Your task to perform on an android device: What's the weather going to be tomorrow? Image 0: 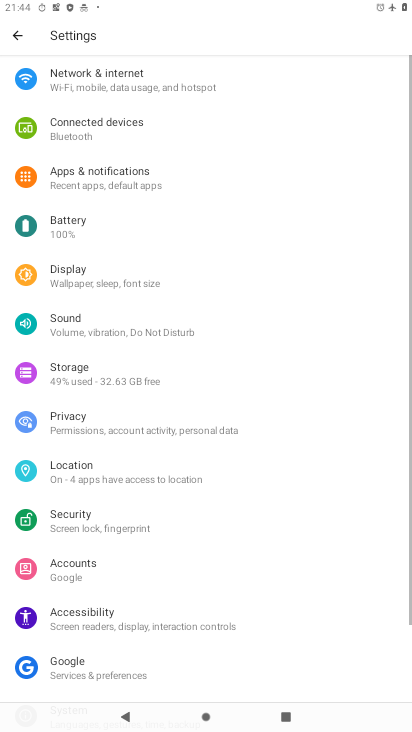
Step 0: press back button
Your task to perform on an android device: What's the weather going to be tomorrow? Image 1: 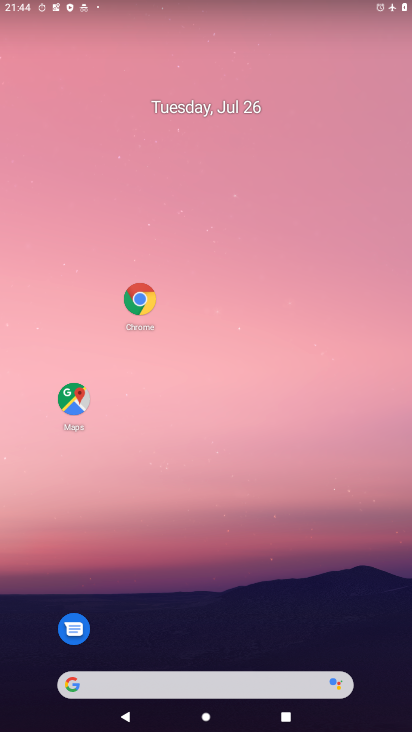
Step 1: drag from (258, 644) to (213, 66)
Your task to perform on an android device: What's the weather going to be tomorrow? Image 2: 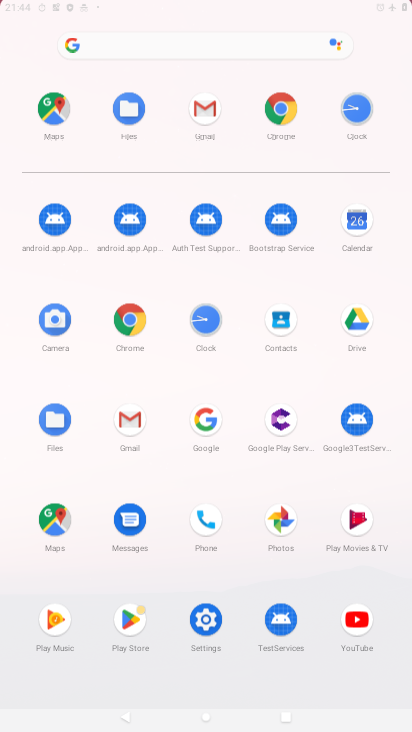
Step 2: drag from (197, 376) to (197, 112)
Your task to perform on an android device: What's the weather going to be tomorrow? Image 3: 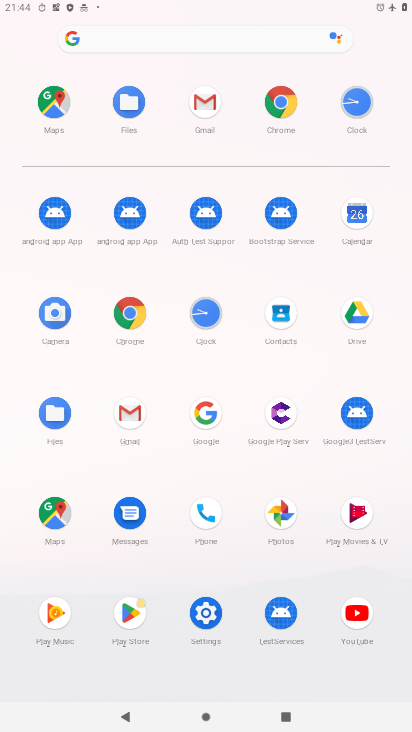
Step 3: drag from (191, 204) to (191, 148)
Your task to perform on an android device: What's the weather going to be tomorrow? Image 4: 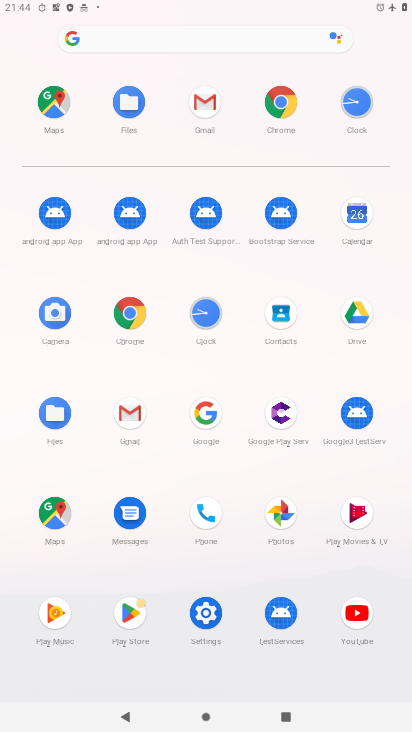
Step 4: click (205, 616)
Your task to perform on an android device: What's the weather going to be tomorrow? Image 5: 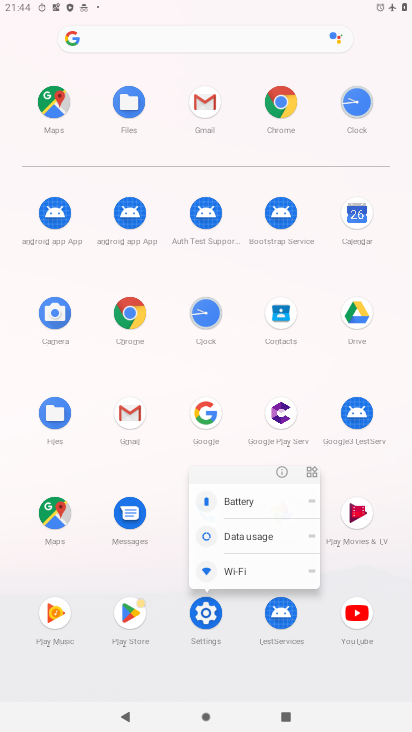
Step 5: click (204, 615)
Your task to perform on an android device: What's the weather going to be tomorrow? Image 6: 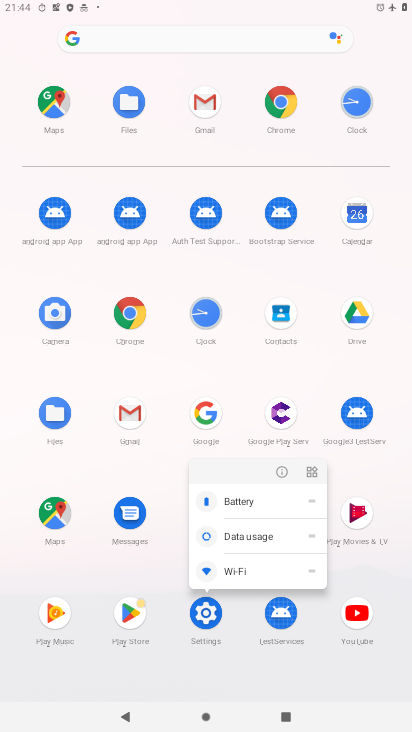
Step 6: click (204, 615)
Your task to perform on an android device: What's the weather going to be tomorrow? Image 7: 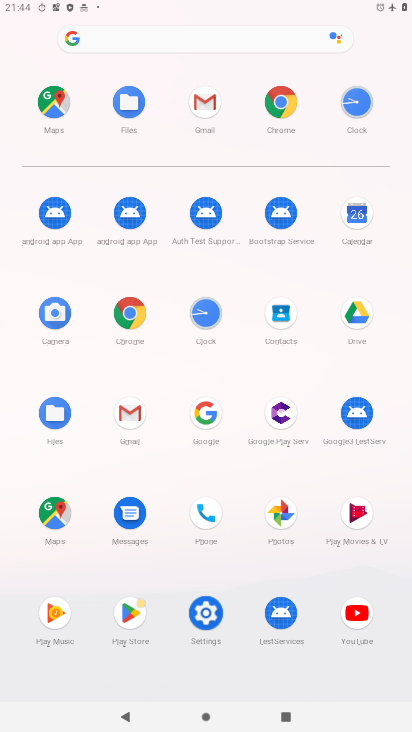
Step 7: click (204, 615)
Your task to perform on an android device: What's the weather going to be tomorrow? Image 8: 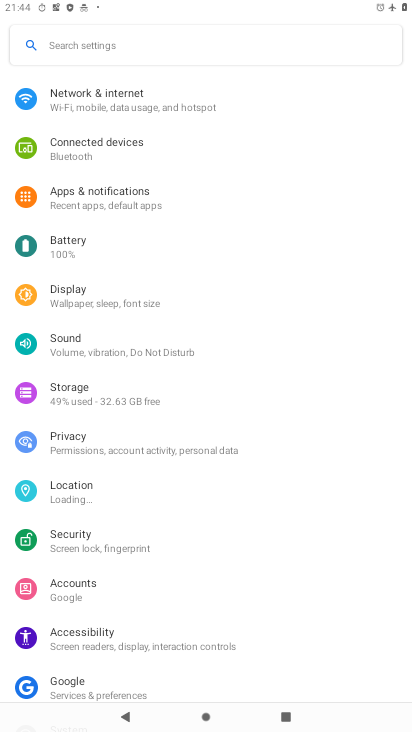
Step 8: click (95, 109)
Your task to perform on an android device: What's the weather going to be tomorrow? Image 9: 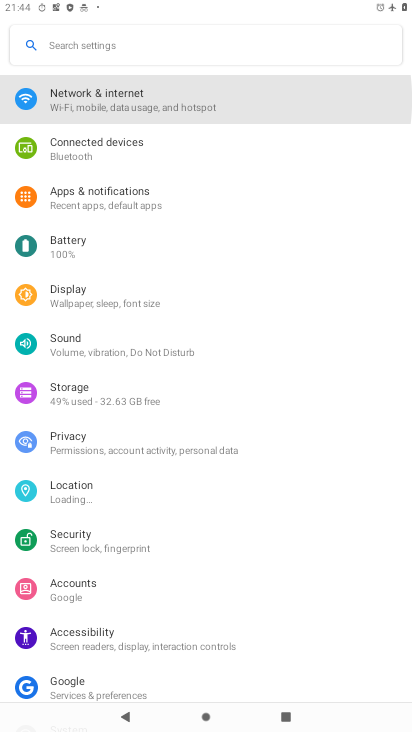
Step 9: click (95, 109)
Your task to perform on an android device: What's the weather going to be tomorrow? Image 10: 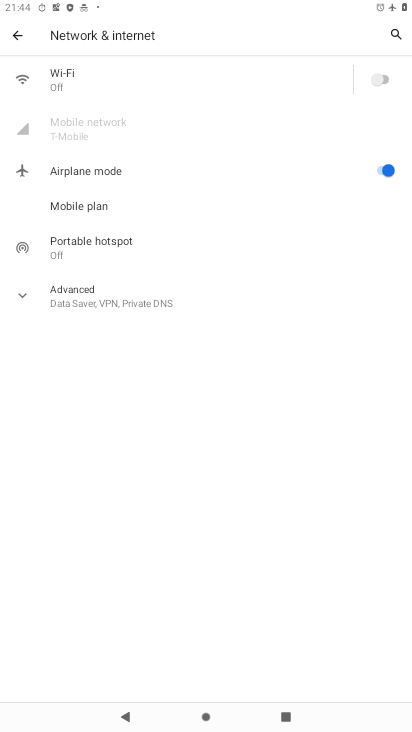
Step 10: click (378, 73)
Your task to perform on an android device: What's the weather going to be tomorrow? Image 11: 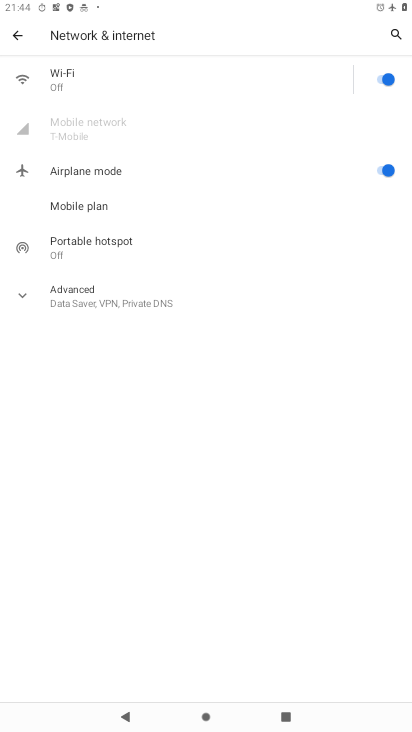
Step 11: click (394, 170)
Your task to perform on an android device: What's the weather going to be tomorrow? Image 12: 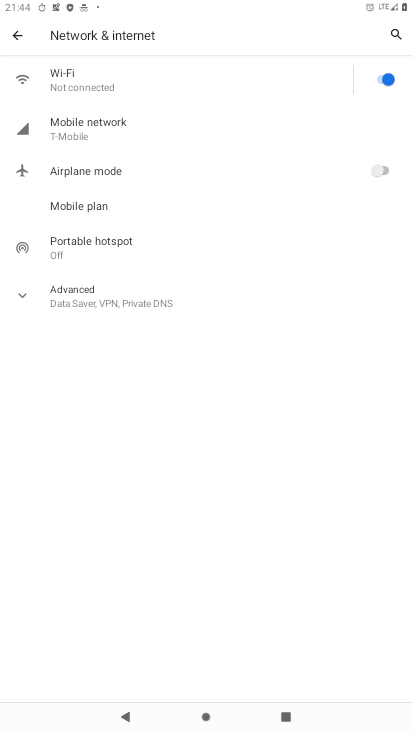
Step 12: click (393, 176)
Your task to perform on an android device: What's the weather going to be tomorrow? Image 13: 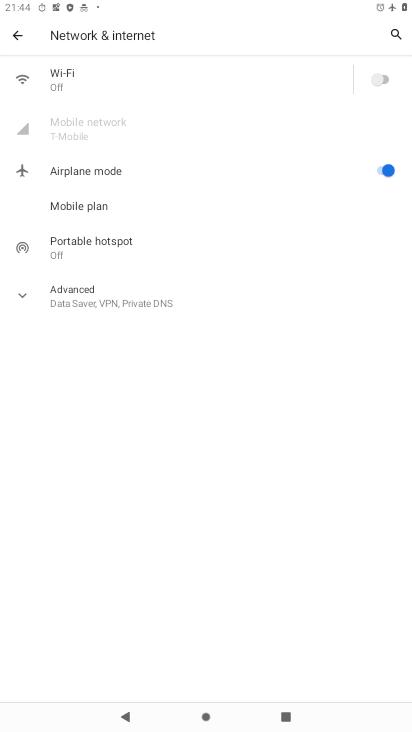
Step 13: click (371, 88)
Your task to perform on an android device: What's the weather going to be tomorrow? Image 14: 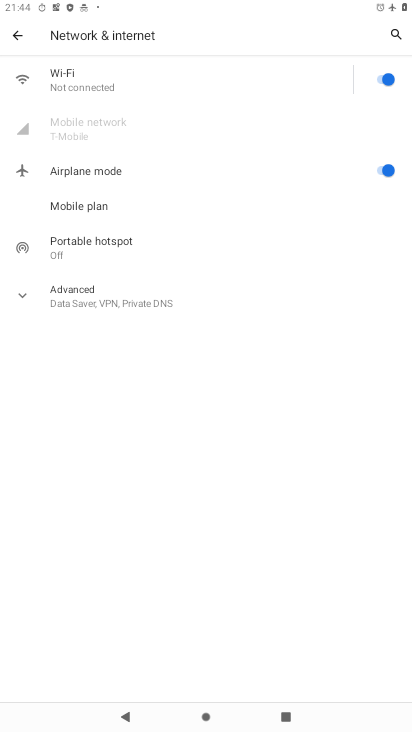
Step 14: click (390, 170)
Your task to perform on an android device: What's the weather going to be tomorrow? Image 15: 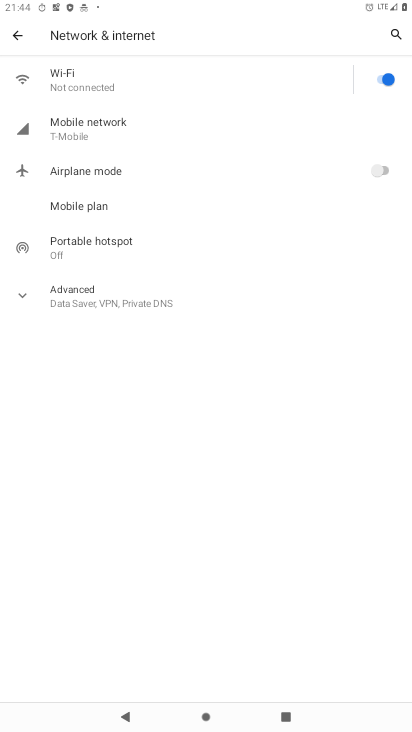
Step 15: press back button
Your task to perform on an android device: What's the weather going to be tomorrow? Image 16: 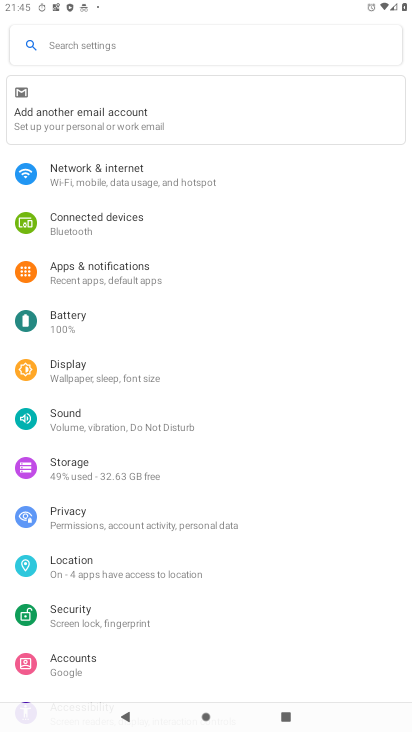
Step 16: press home button
Your task to perform on an android device: What's the weather going to be tomorrow? Image 17: 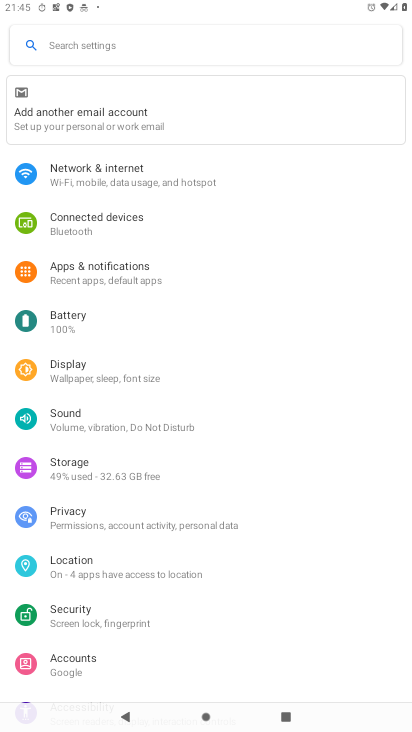
Step 17: press home button
Your task to perform on an android device: What's the weather going to be tomorrow? Image 18: 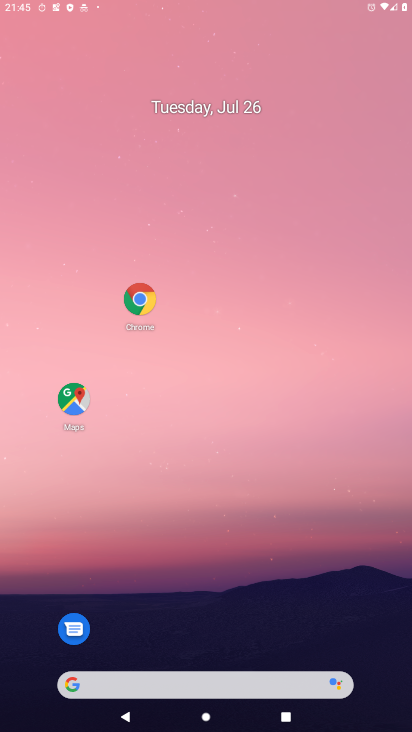
Step 18: press home button
Your task to perform on an android device: What's the weather going to be tomorrow? Image 19: 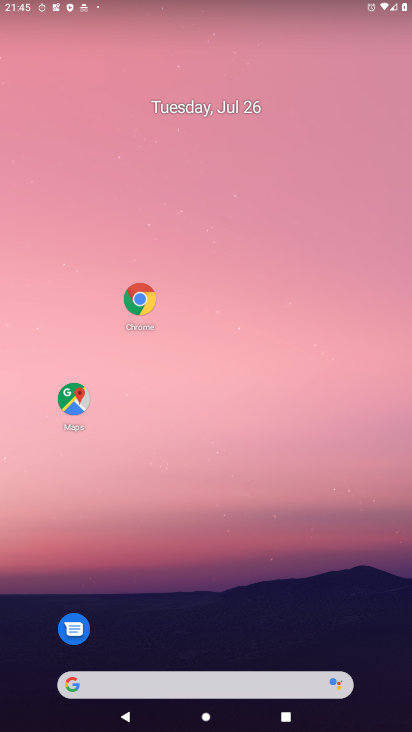
Step 19: drag from (239, 654) to (207, 139)
Your task to perform on an android device: What's the weather going to be tomorrow? Image 20: 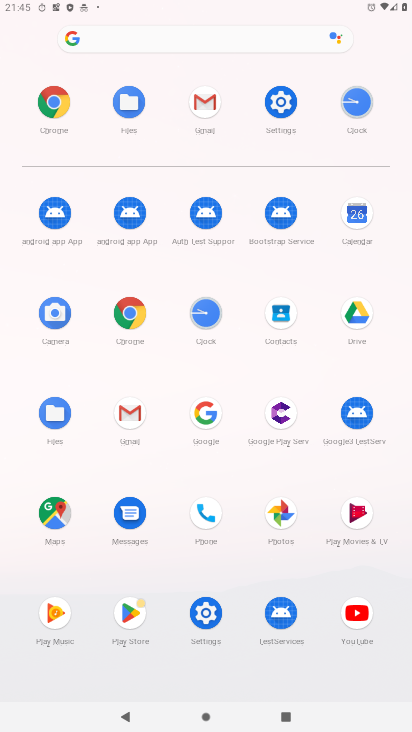
Step 20: click (133, 311)
Your task to perform on an android device: What's the weather going to be tomorrow? Image 21: 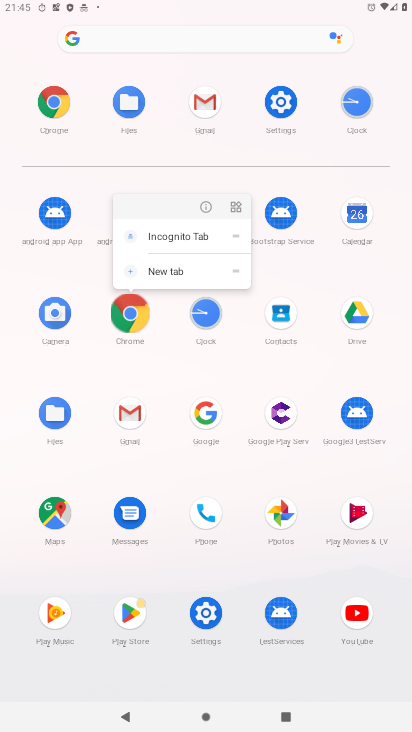
Step 21: click (132, 313)
Your task to perform on an android device: What's the weather going to be tomorrow? Image 22: 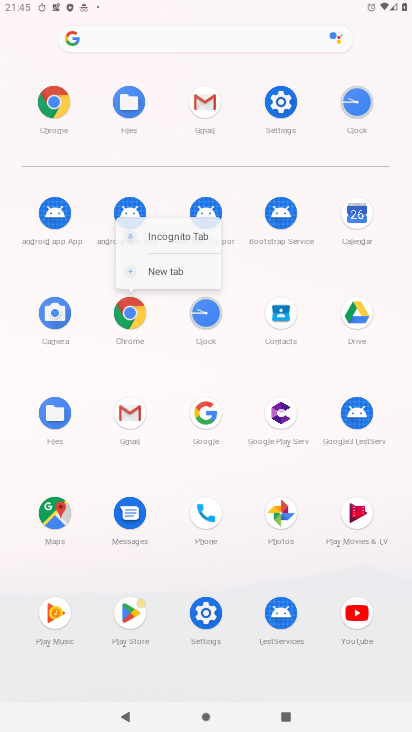
Step 22: click (133, 315)
Your task to perform on an android device: What's the weather going to be tomorrow? Image 23: 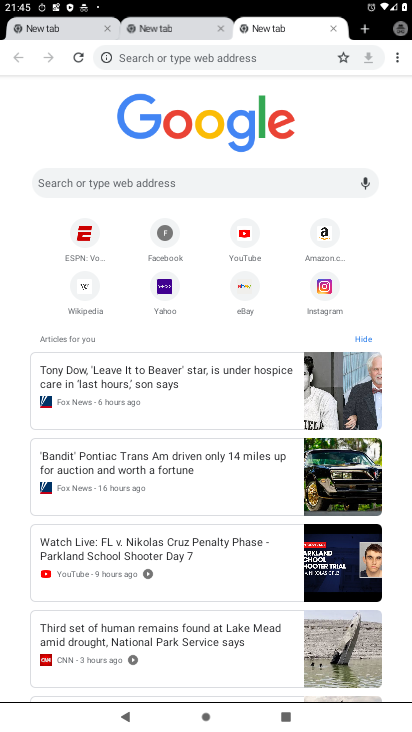
Step 23: click (84, 181)
Your task to perform on an android device: What's the weather going to be tomorrow? Image 24: 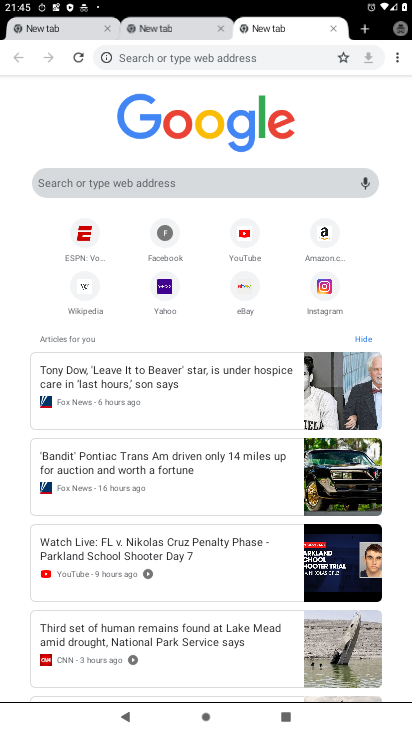
Step 24: click (92, 189)
Your task to perform on an android device: What's the weather going to be tomorrow? Image 25: 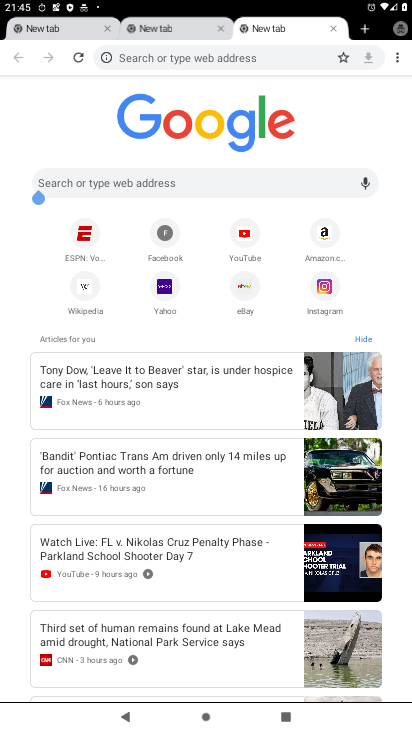
Step 25: click (92, 189)
Your task to perform on an android device: What's the weather going to be tomorrow? Image 26: 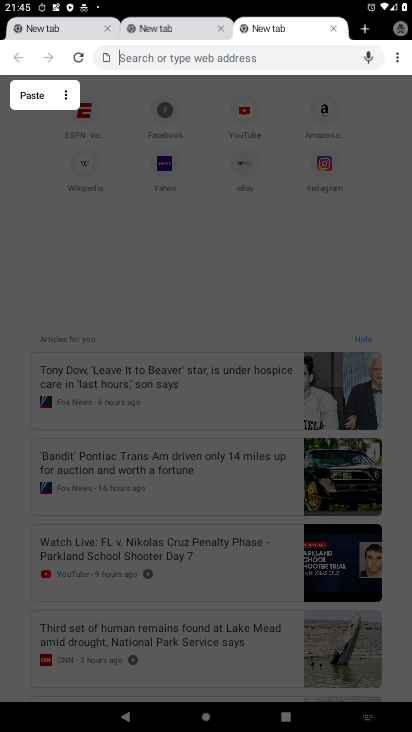
Step 26: type "weather"
Your task to perform on an android device: What's the weather going to be tomorrow? Image 27: 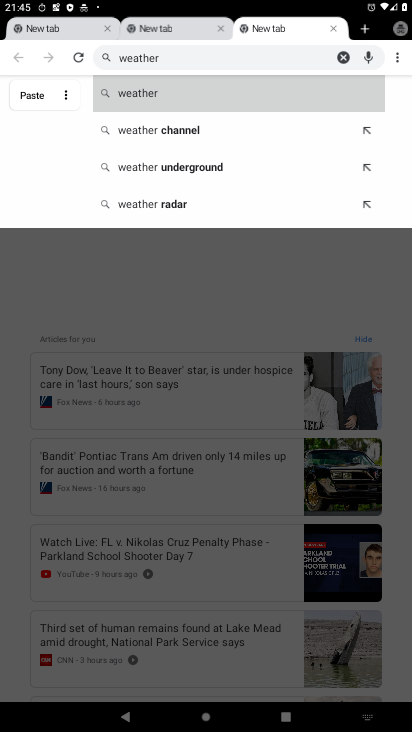
Step 27: click (142, 97)
Your task to perform on an android device: What's the weather going to be tomorrow? Image 28: 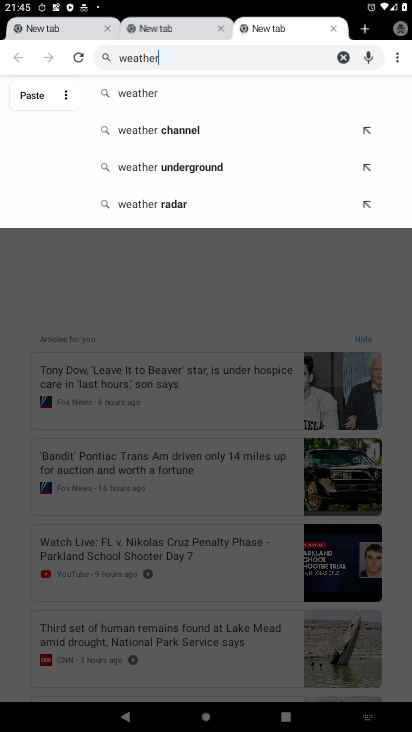
Step 28: click (141, 80)
Your task to perform on an android device: What's the weather going to be tomorrow? Image 29: 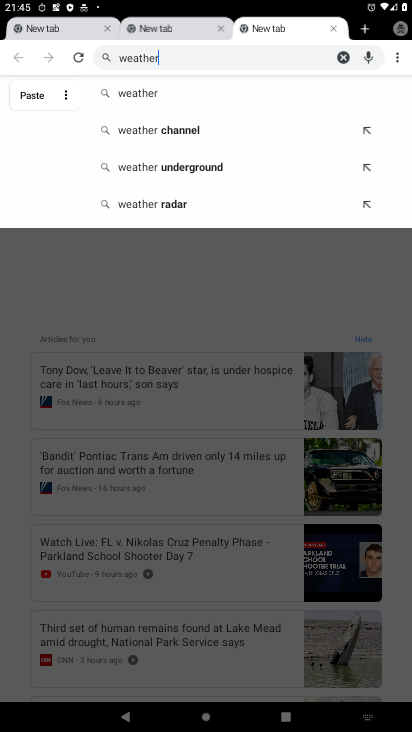
Step 29: click (141, 80)
Your task to perform on an android device: What's the weather going to be tomorrow? Image 30: 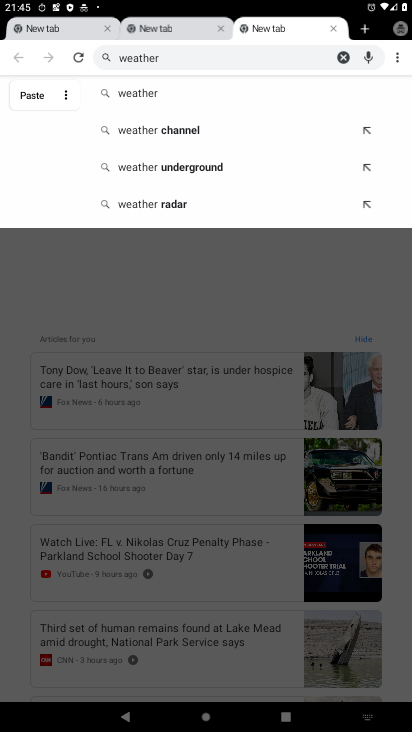
Step 30: click (161, 97)
Your task to perform on an android device: What's the weather going to be tomorrow? Image 31: 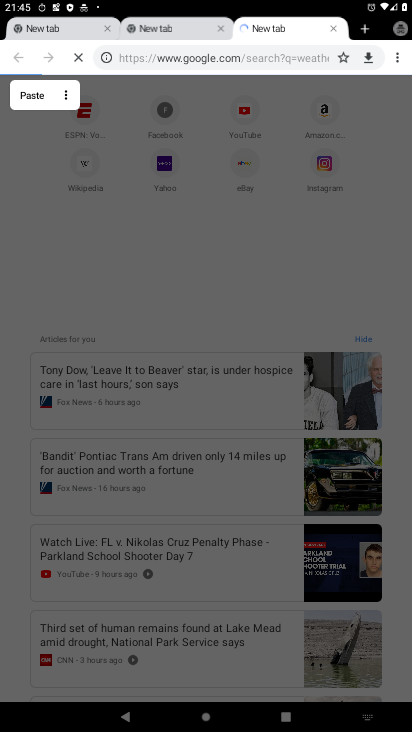
Step 31: click (148, 88)
Your task to perform on an android device: What's the weather going to be tomorrow? Image 32: 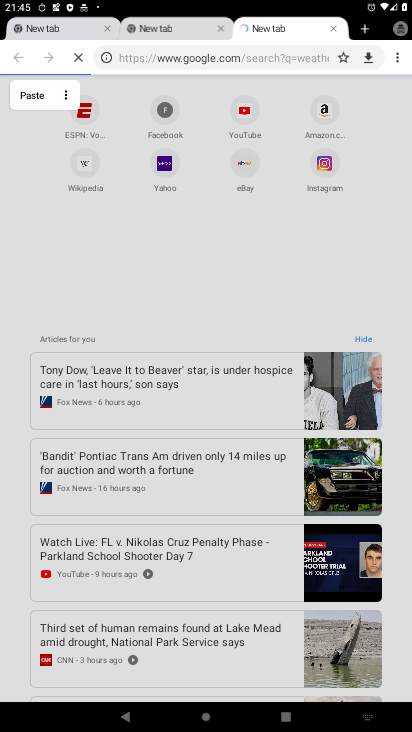
Step 32: click (161, 99)
Your task to perform on an android device: What's the weather going to be tomorrow? Image 33: 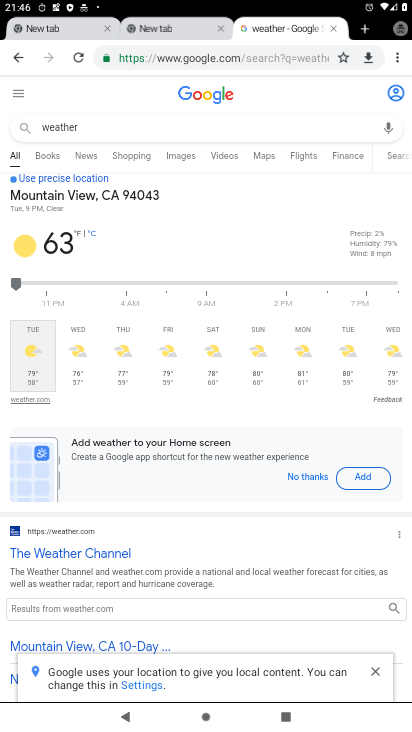
Step 33: click (126, 156)
Your task to perform on an android device: What's the weather going to be tomorrow? Image 34: 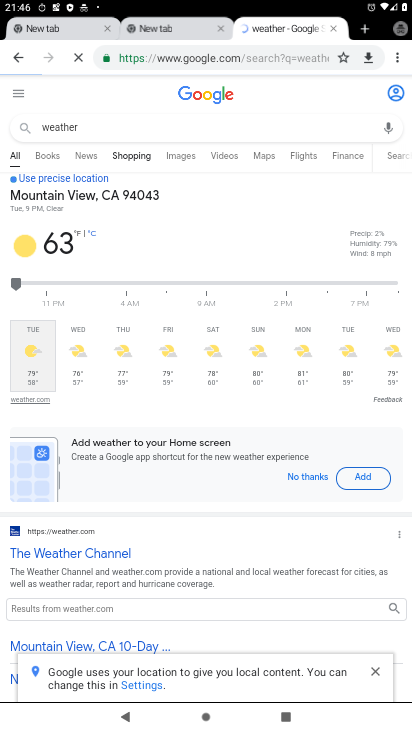
Step 34: drag from (196, 285) to (185, 208)
Your task to perform on an android device: What's the weather going to be tomorrow? Image 35: 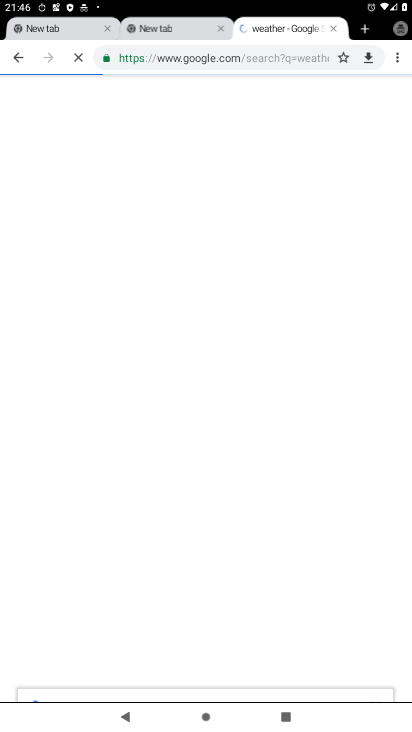
Step 35: drag from (247, 437) to (252, 494)
Your task to perform on an android device: What's the weather going to be tomorrow? Image 36: 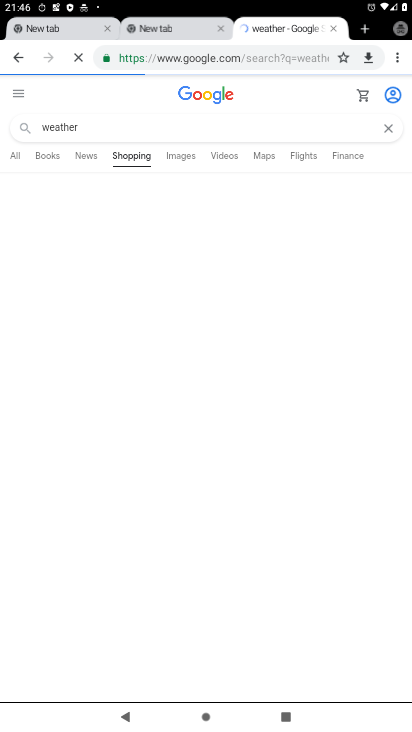
Step 36: click (315, 455)
Your task to perform on an android device: What's the weather going to be tomorrow? Image 37: 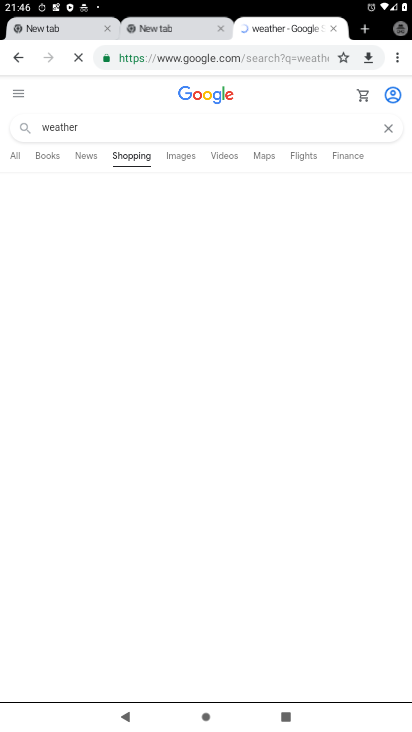
Step 37: task complete